Your task to perform on an android device: toggle show notifications on the lock screen Image 0: 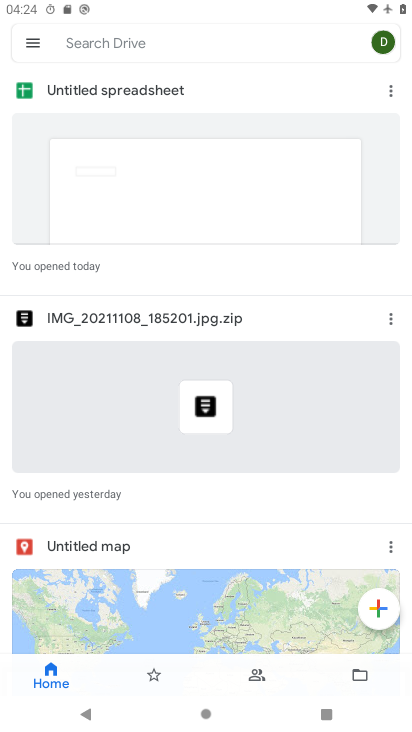
Step 0: press home button
Your task to perform on an android device: toggle show notifications on the lock screen Image 1: 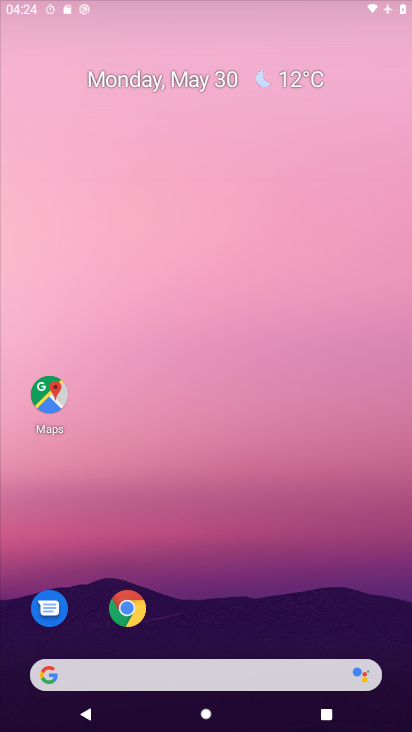
Step 1: drag from (333, 581) to (265, 20)
Your task to perform on an android device: toggle show notifications on the lock screen Image 2: 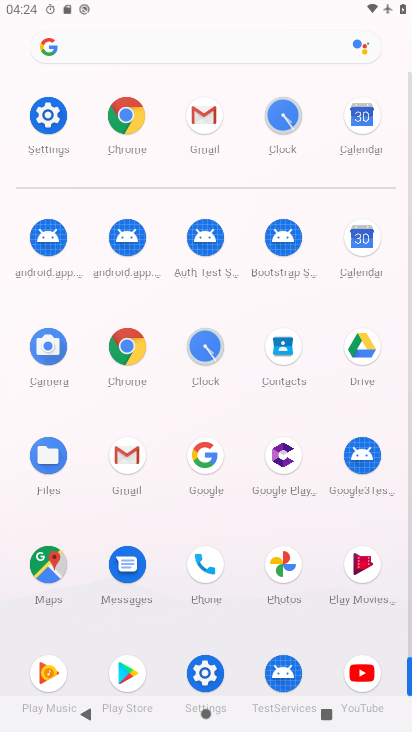
Step 2: click (61, 125)
Your task to perform on an android device: toggle show notifications on the lock screen Image 3: 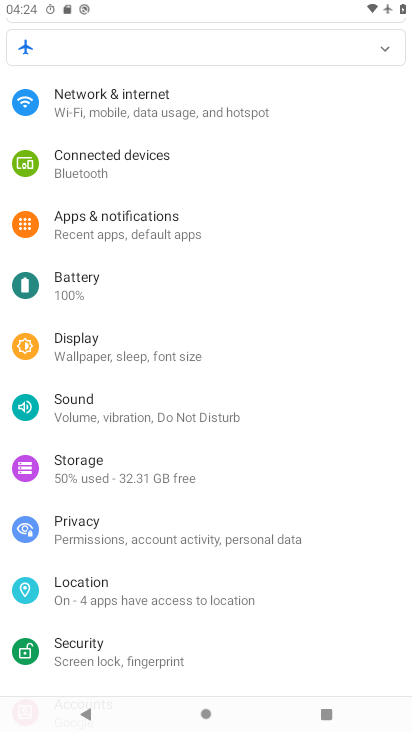
Step 3: click (170, 216)
Your task to perform on an android device: toggle show notifications on the lock screen Image 4: 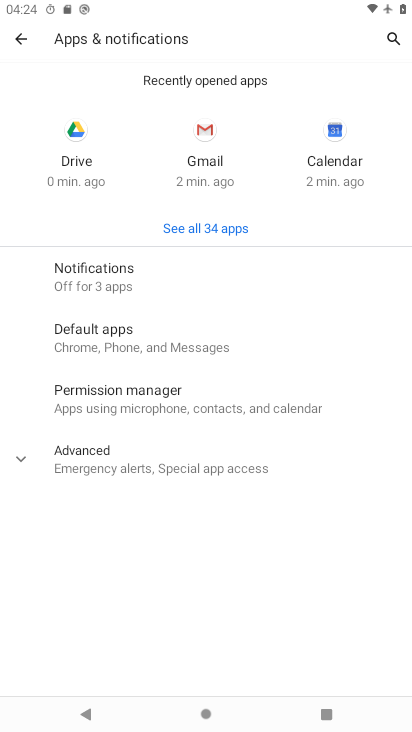
Step 4: click (174, 283)
Your task to perform on an android device: toggle show notifications on the lock screen Image 5: 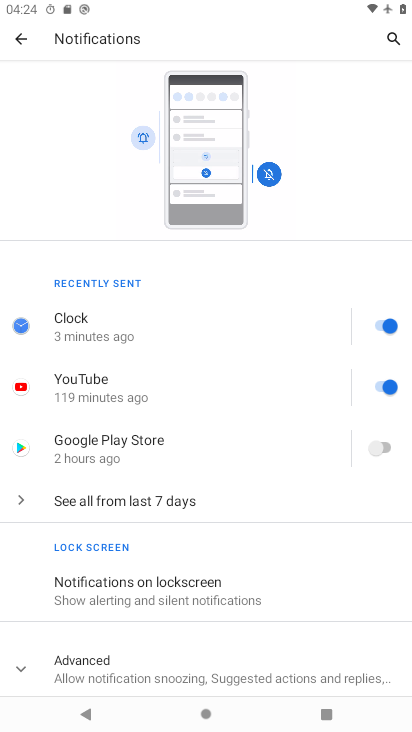
Step 5: click (173, 590)
Your task to perform on an android device: toggle show notifications on the lock screen Image 6: 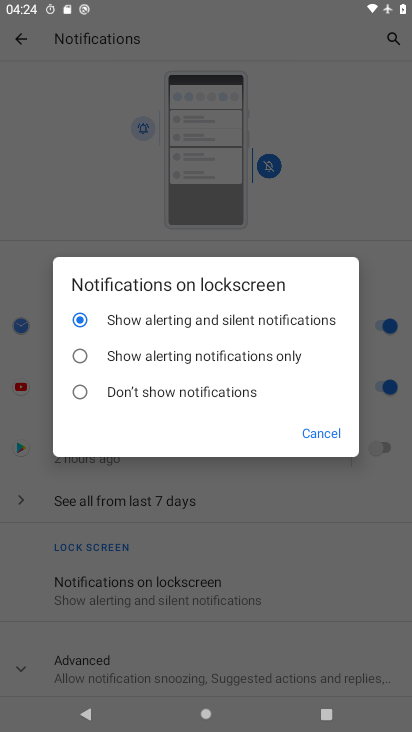
Step 6: click (215, 393)
Your task to perform on an android device: toggle show notifications on the lock screen Image 7: 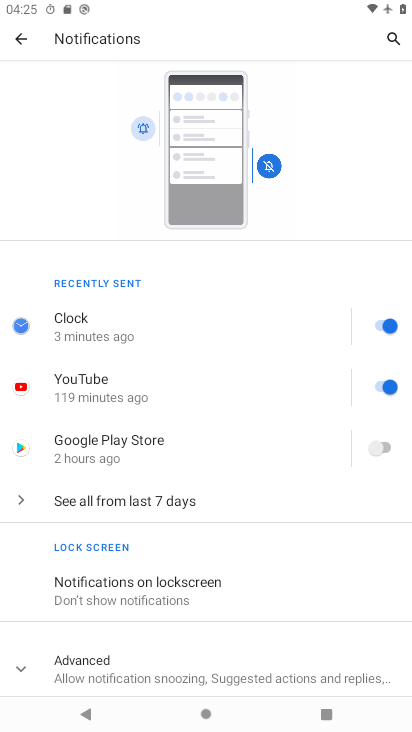
Step 7: task complete